Your task to perform on an android device: Open Google Chrome and open the bookmarks view Image 0: 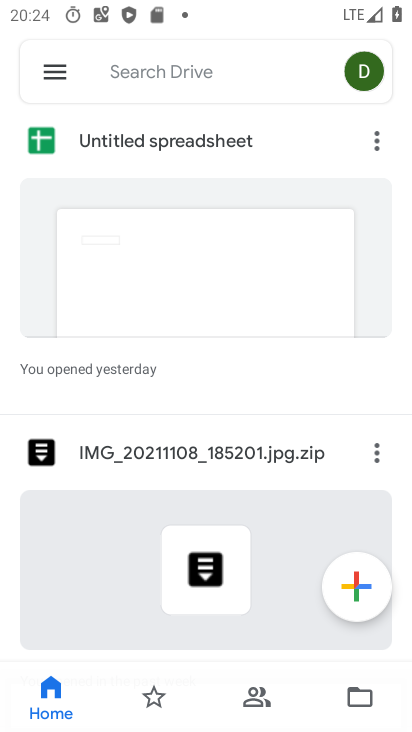
Step 0: press home button
Your task to perform on an android device: Open Google Chrome and open the bookmarks view Image 1: 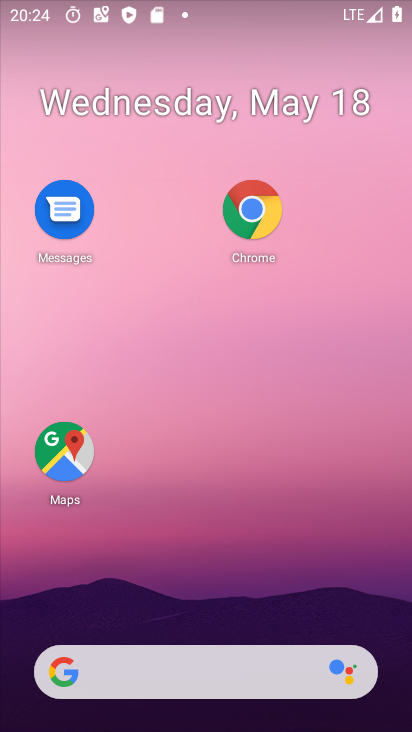
Step 1: click (249, 210)
Your task to perform on an android device: Open Google Chrome and open the bookmarks view Image 2: 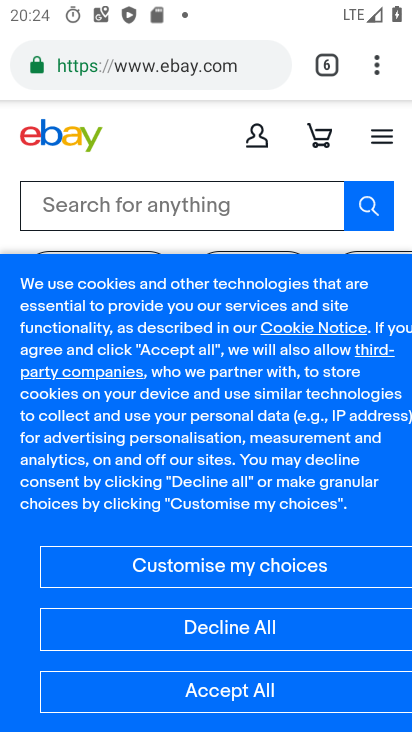
Step 2: click (387, 60)
Your task to perform on an android device: Open Google Chrome and open the bookmarks view Image 3: 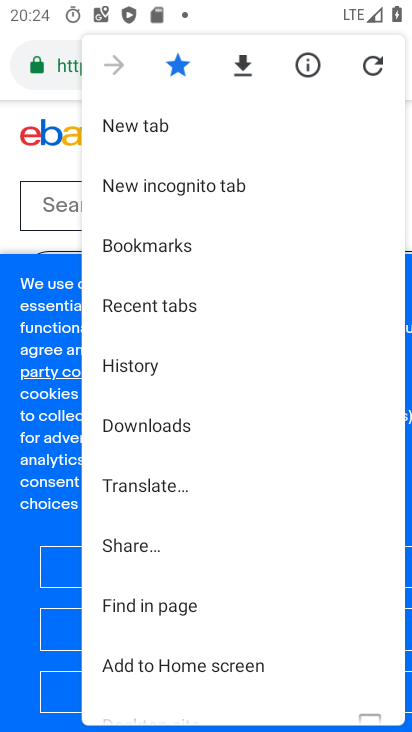
Step 3: click (163, 239)
Your task to perform on an android device: Open Google Chrome and open the bookmarks view Image 4: 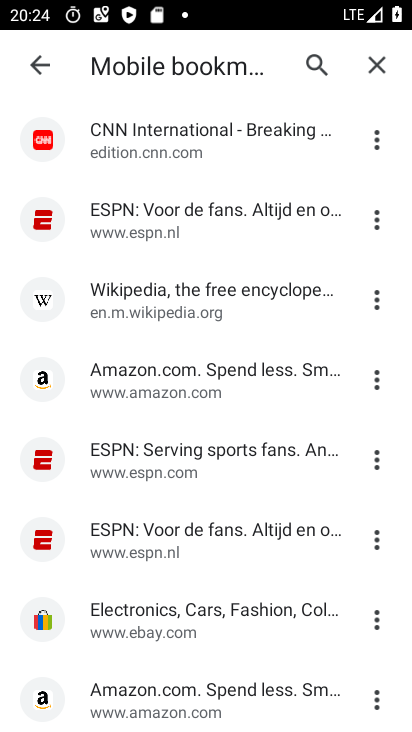
Step 4: task complete